Your task to perform on an android device: Open notification settings Image 0: 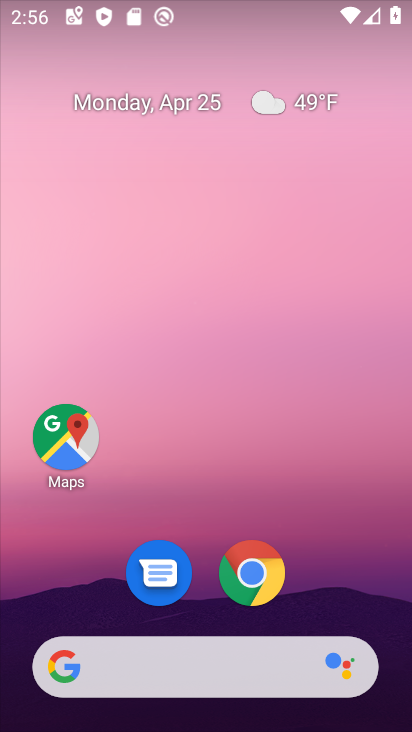
Step 0: drag from (347, 551) to (267, 125)
Your task to perform on an android device: Open notification settings Image 1: 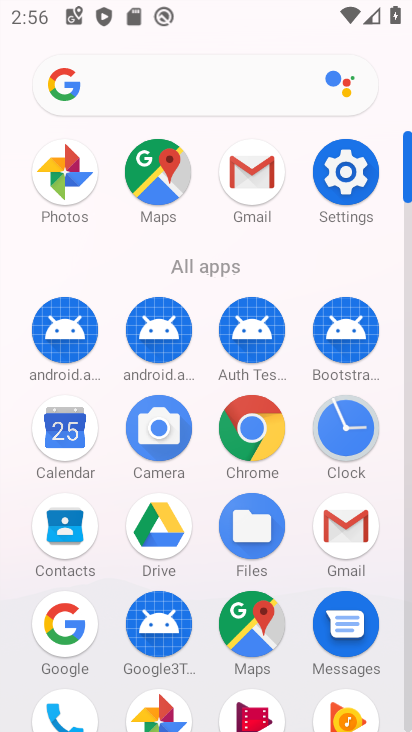
Step 1: click (336, 178)
Your task to perform on an android device: Open notification settings Image 2: 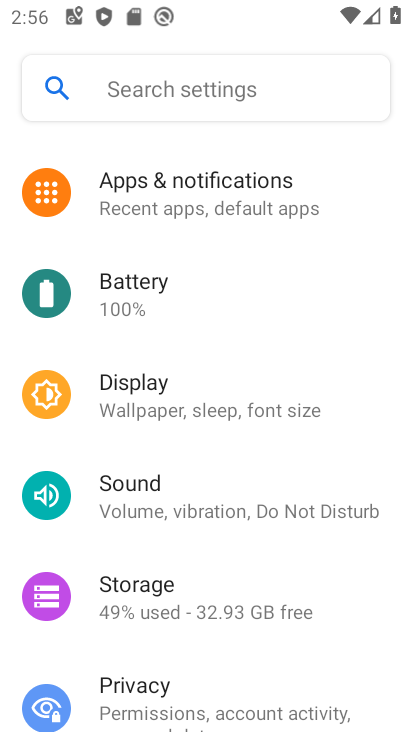
Step 2: click (162, 216)
Your task to perform on an android device: Open notification settings Image 3: 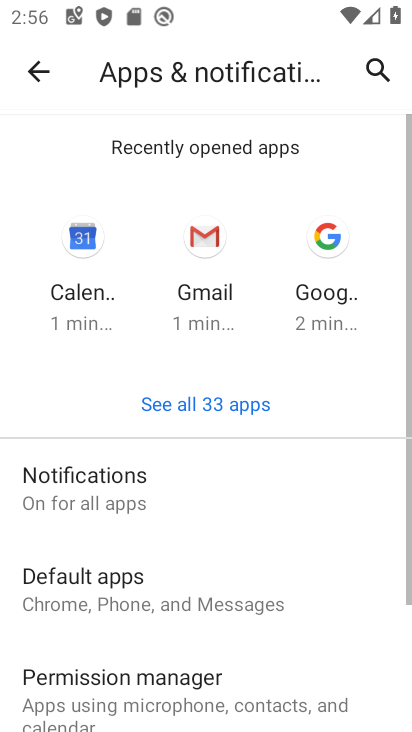
Step 3: click (158, 495)
Your task to perform on an android device: Open notification settings Image 4: 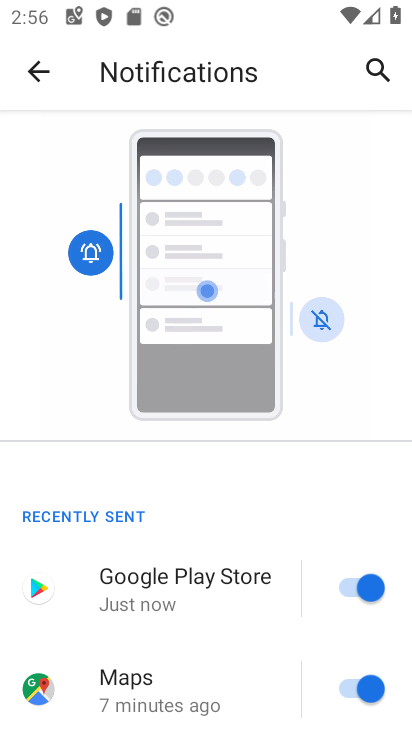
Step 4: task complete